Your task to perform on an android device: toggle notifications settings in the gmail app Image 0: 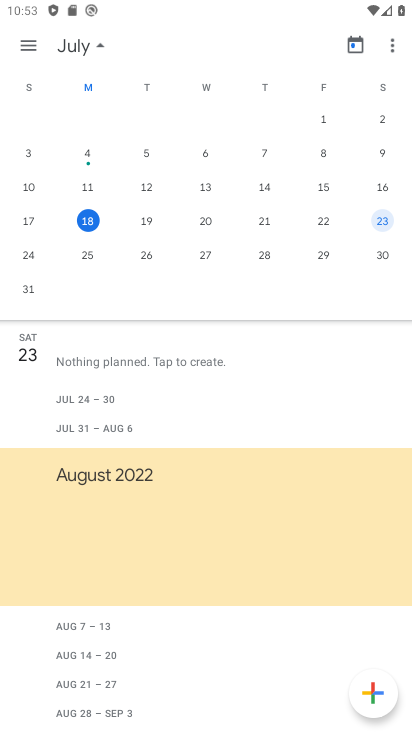
Step 0: press home button
Your task to perform on an android device: toggle notifications settings in the gmail app Image 1: 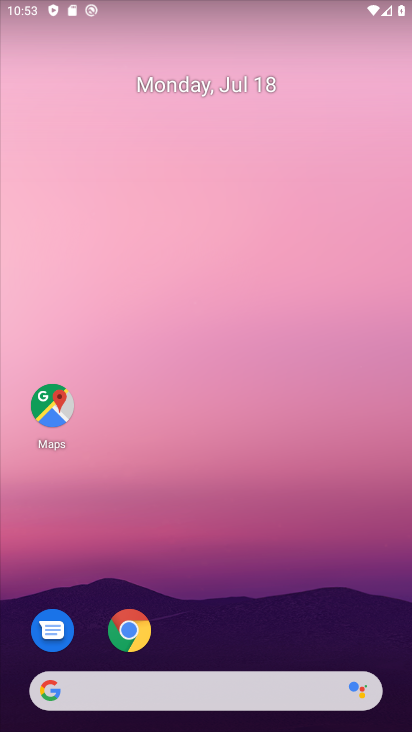
Step 1: drag from (226, 676) to (240, 62)
Your task to perform on an android device: toggle notifications settings in the gmail app Image 2: 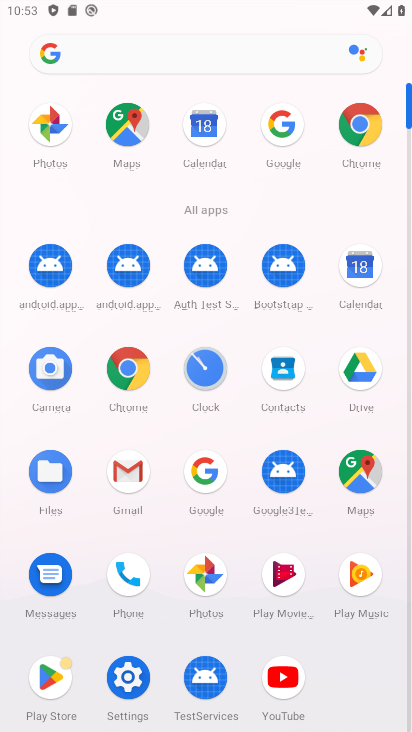
Step 2: click (131, 471)
Your task to perform on an android device: toggle notifications settings in the gmail app Image 3: 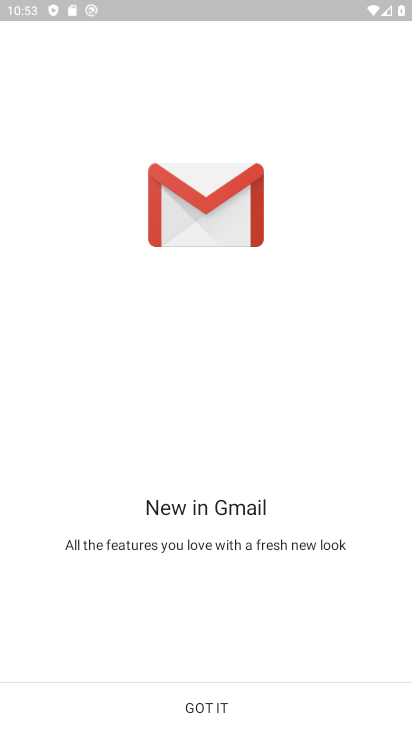
Step 3: click (196, 713)
Your task to perform on an android device: toggle notifications settings in the gmail app Image 4: 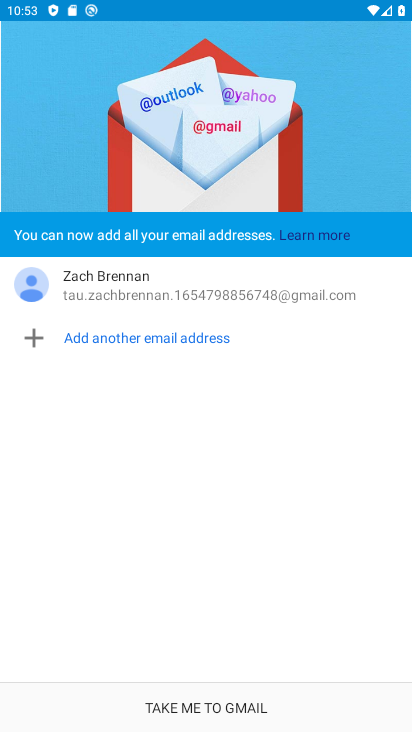
Step 4: click (196, 713)
Your task to perform on an android device: toggle notifications settings in the gmail app Image 5: 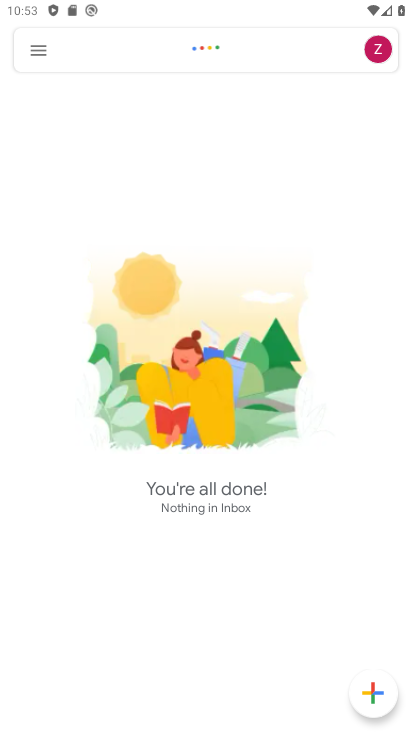
Step 5: click (41, 50)
Your task to perform on an android device: toggle notifications settings in the gmail app Image 6: 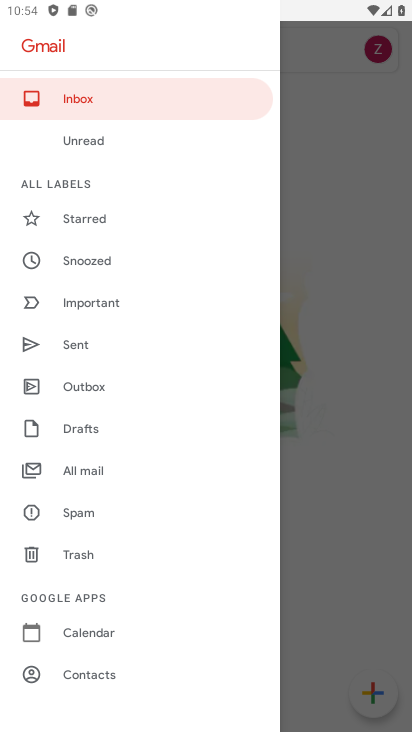
Step 6: drag from (120, 679) to (150, 261)
Your task to perform on an android device: toggle notifications settings in the gmail app Image 7: 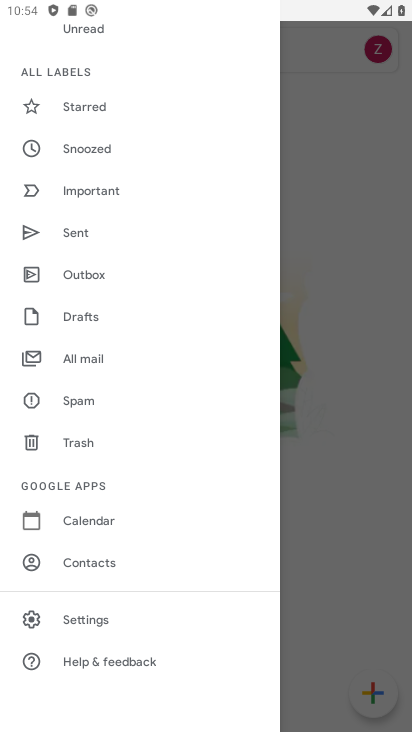
Step 7: click (73, 613)
Your task to perform on an android device: toggle notifications settings in the gmail app Image 8: 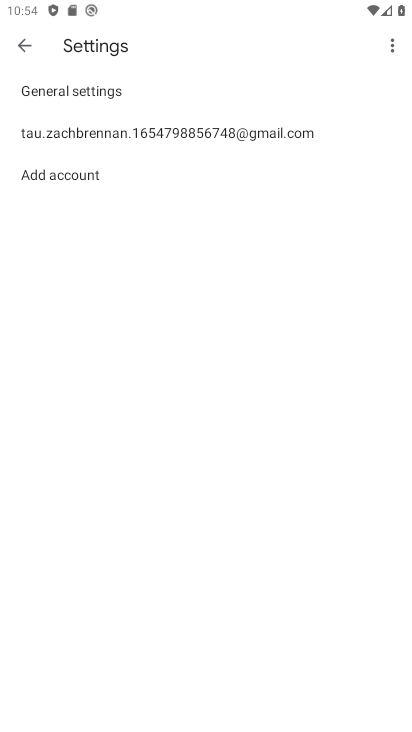
Step 8: click (145, 127)
Your task to perform on an android device: toggle notifications settings in the gmail app Image 9: 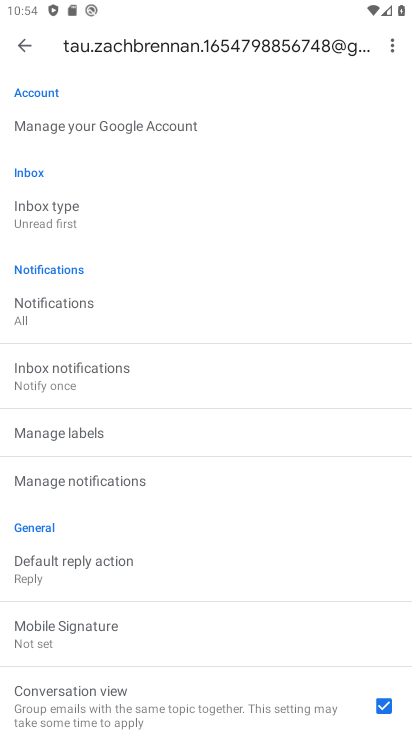
Step 9: click (62, 481)
Your task to perform on an android device: toggle notifications settings in the gmail app Image 10: 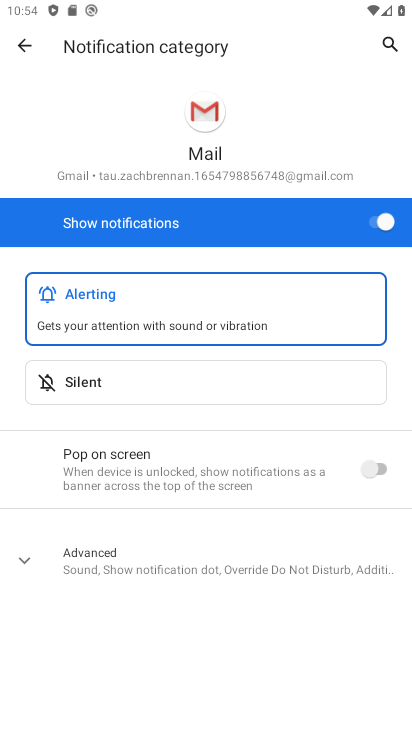
Step 10: click (378, 219)
Your task to perform on an android device: toggle notifications settings in the gmail app Image 11: 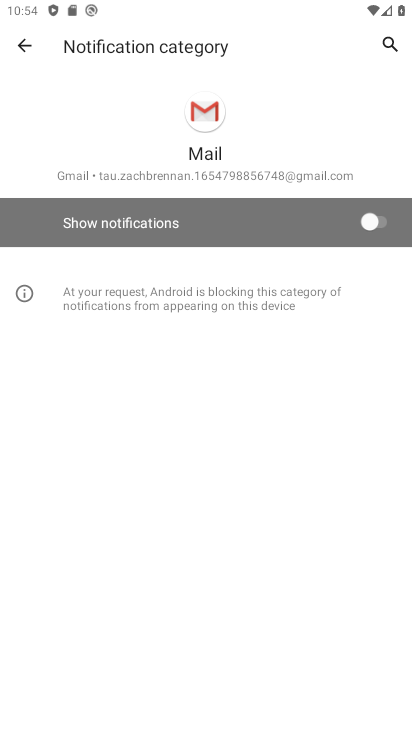
Step 11: task complete